Your task to perform on an android device: Go to accessibility settings Image 0: 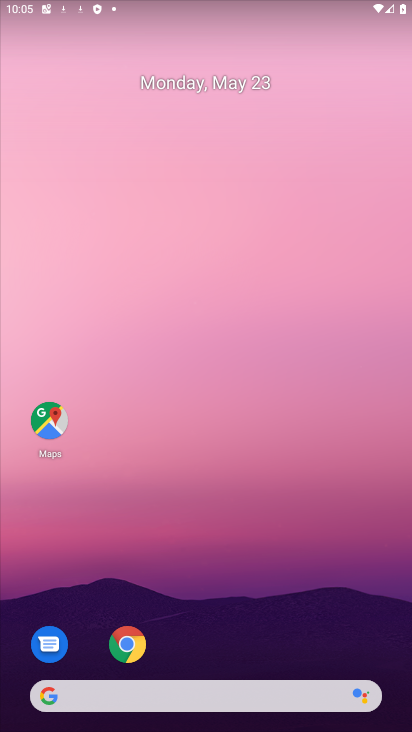
Step 0: drag from (234, 711) to (178, 216)
Your task to perform on an android device: Go to accessibility settings Image 1: 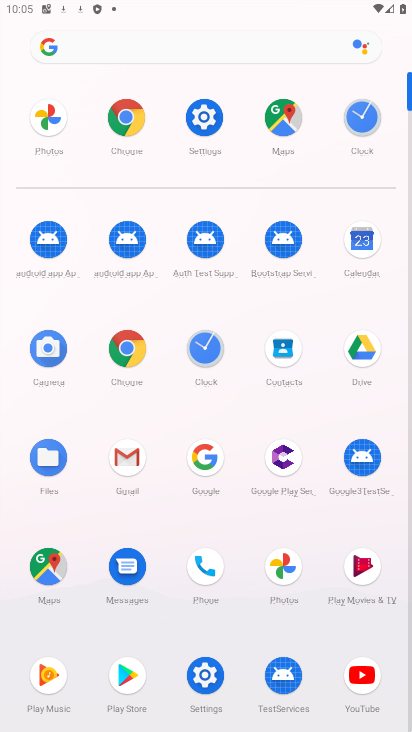
Step 1: click (203, 127)
Your task to perform on an android device: Go to accessibility settings Image 2: 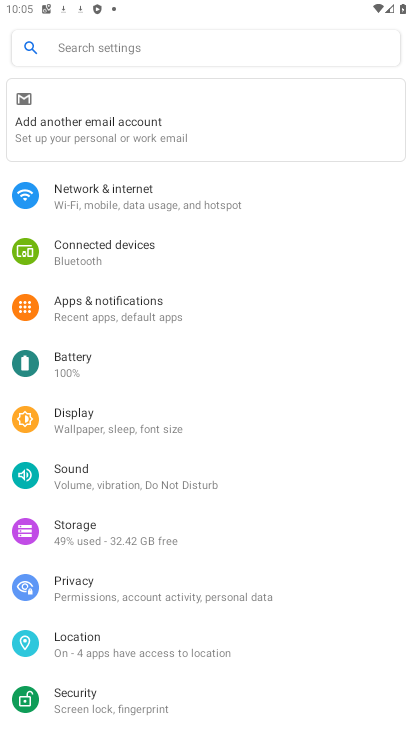
Step 2: click (92, 52)
Your task to perform on an android device: Go to accessibility settings Image 3: 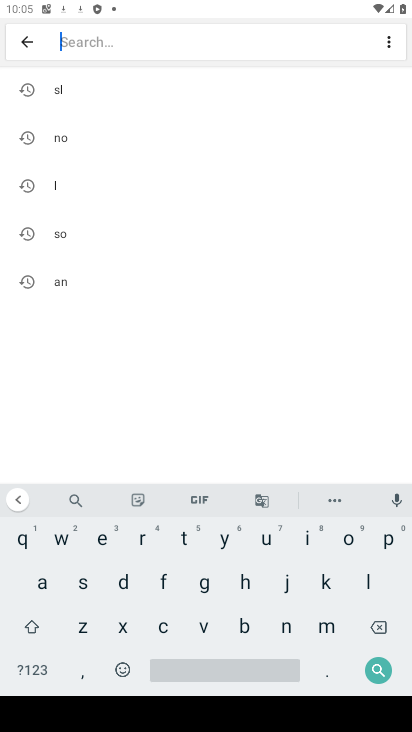
Step 3: click (47, 586)
Your task to perform on an android device: Go to accessibility settings Image 4: 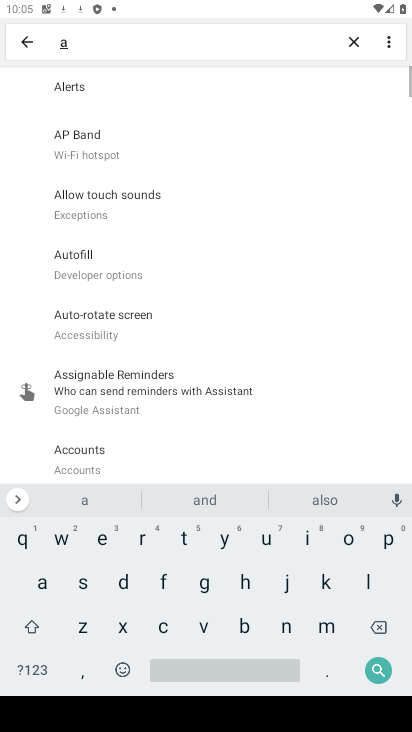
Step 4: click (165, 629)
Your task to perform on an android device: Go to accessibility settings Image 5: 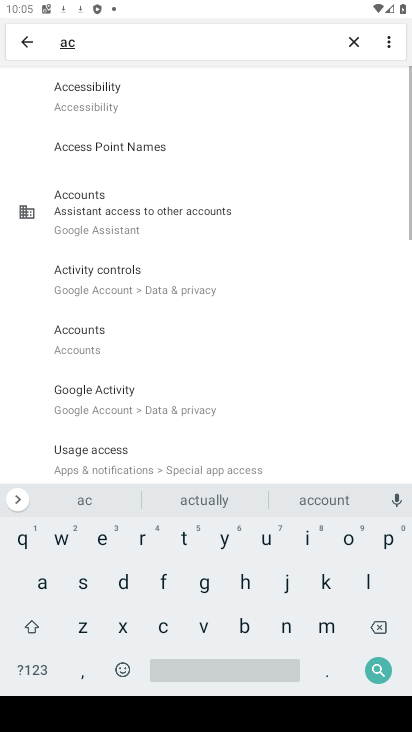
Step 5: click (141, 108)
Your task to perform on an android device: Go to accessibility settings Image 6: 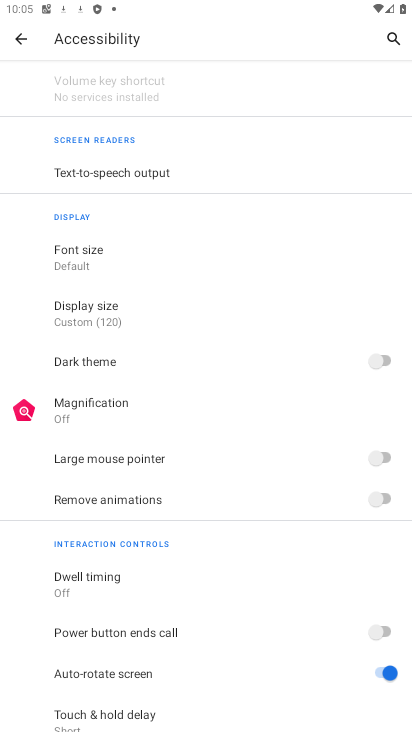
Step 6: task complete